Your task to perform on an android device: allow notifications from all sites in the chrome app Image 0: 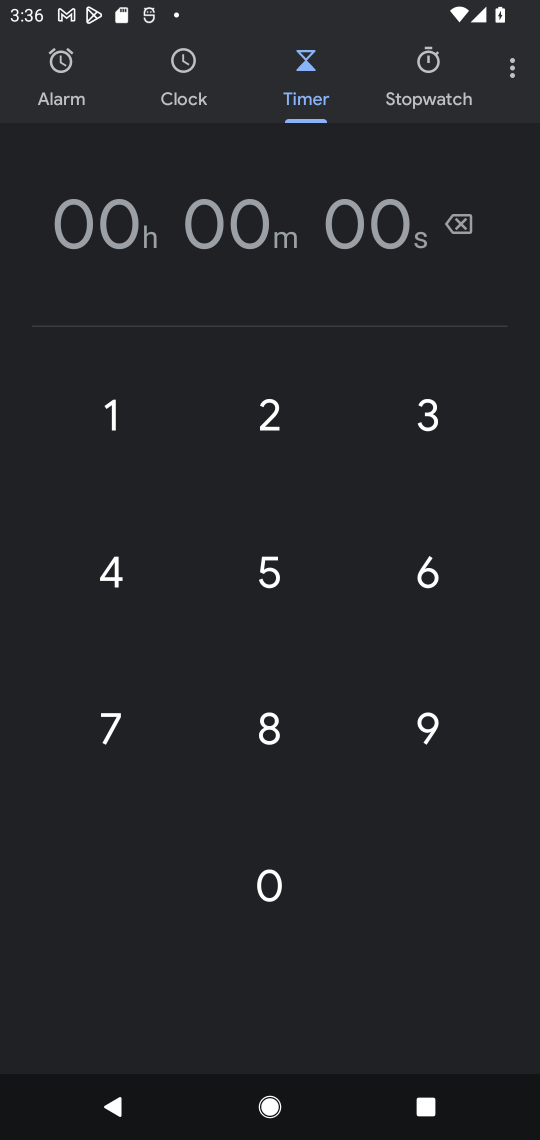
Step 0: press home button
Your task to perform on an android device: allow notifications from all sites in the chrome app Image 1: 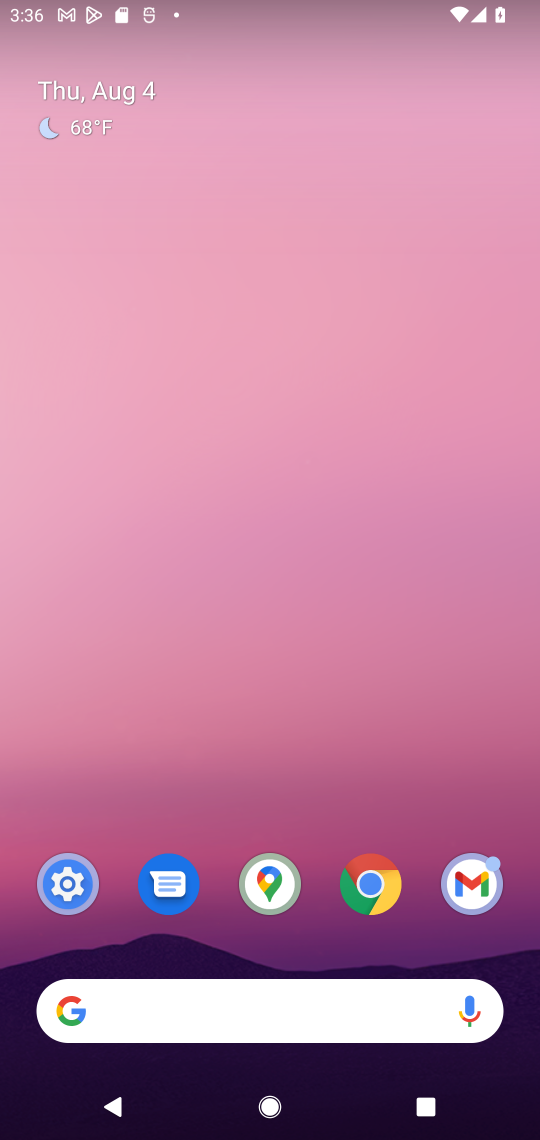
Step 1: click (370, 899)
Your task to perform on an android device: allow notifications from all sites in the chrome app Image 2: 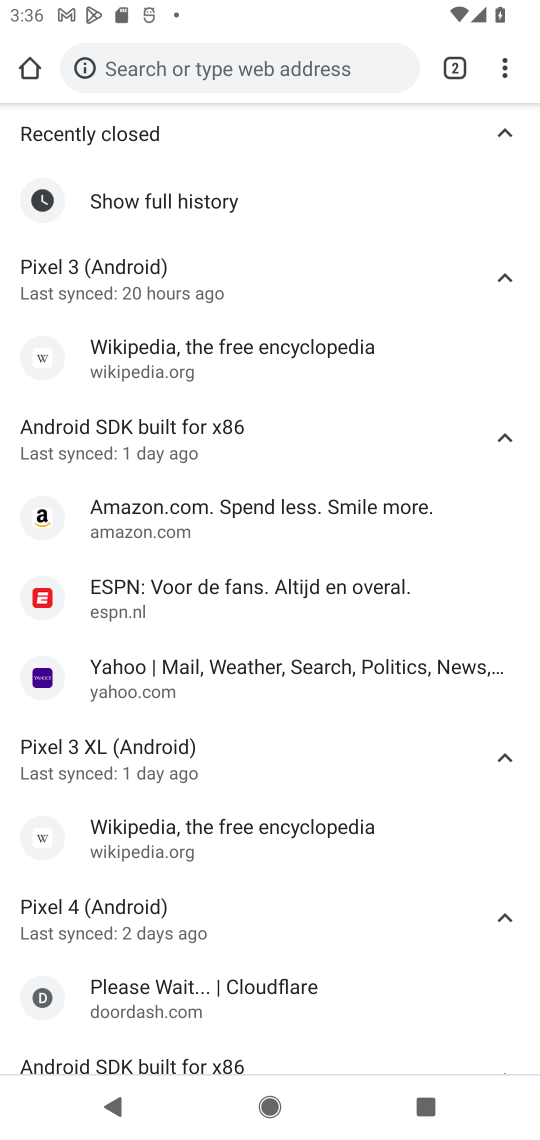
Step 2: click (508, 60)
Your task to perform on an android device: allow notifications from all sites in the chrome app Image 3: 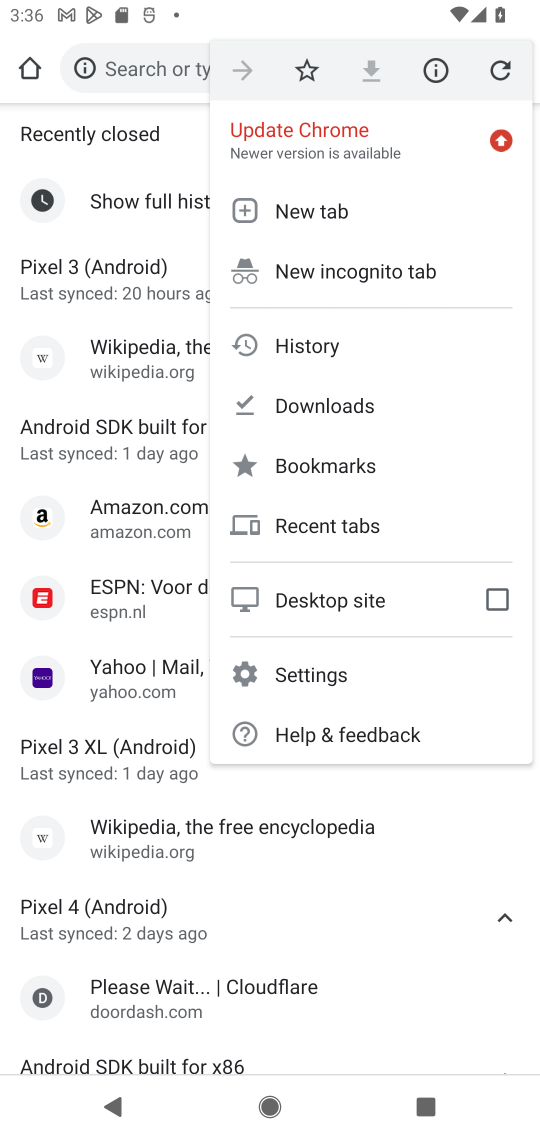
Step 3: click (356, 681)
Your task to perform on an android device: allow notifications from all sites in the chrome app Image 4: 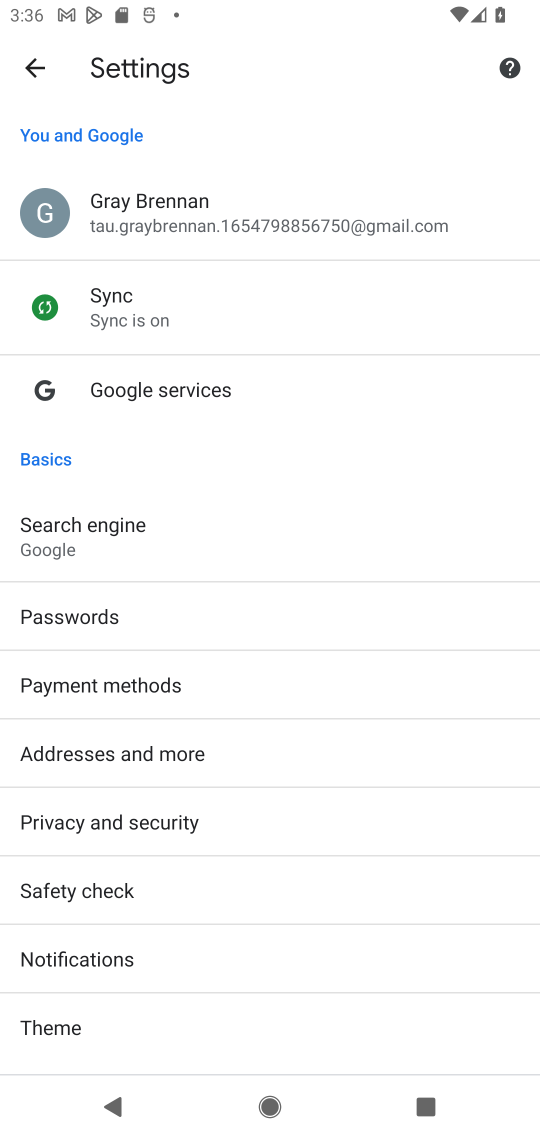
Step 4: click (119, 951)
Your task to perform on an android device: allow notifications from all sites in the chrome app Image 5: 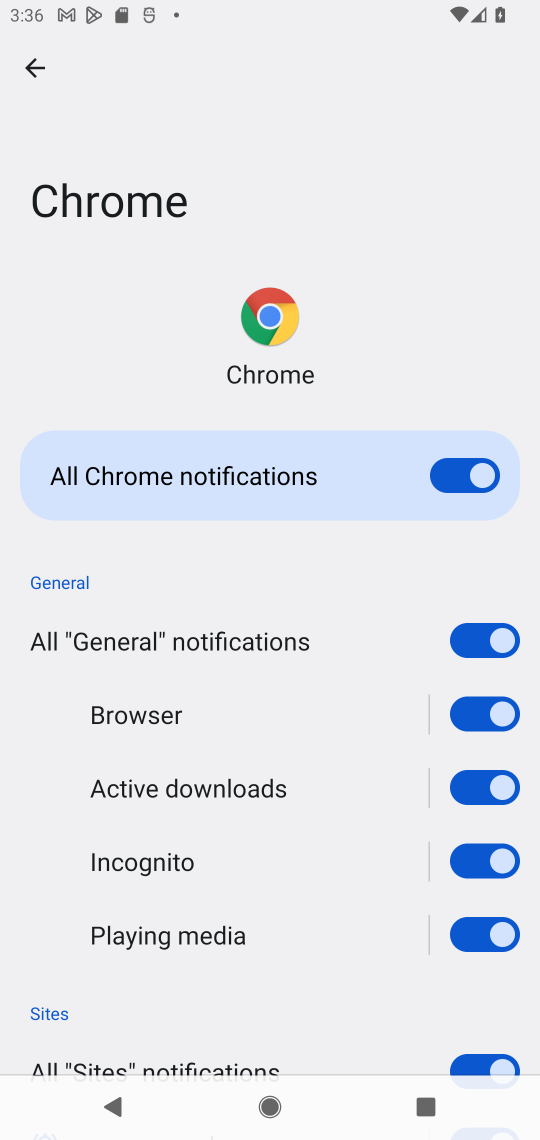
Step 5: task complete